Your task to perform on an android device: change the upload size in google photos Image 0: 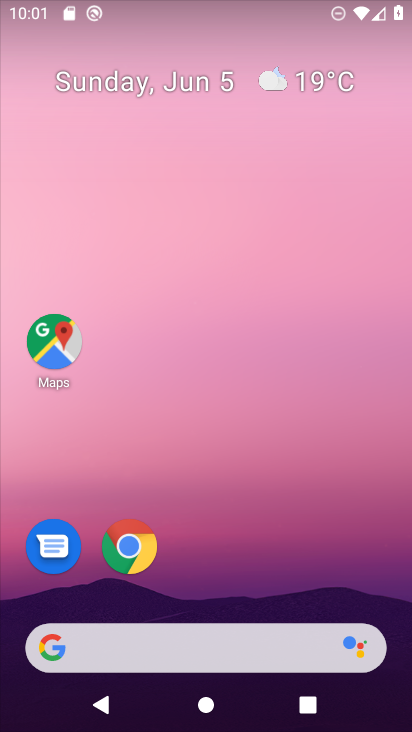
Step 0: drag from (202, 609) to (234, 28)
Your task to perform on an android device: change the upload size in google photos Image 1: 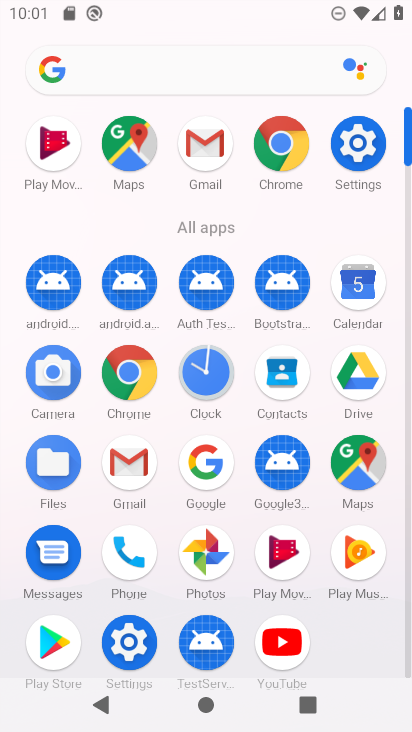
Step 1: click (218, 567)
Your task to perform on an android device: change the upload size in google photos Image 2: 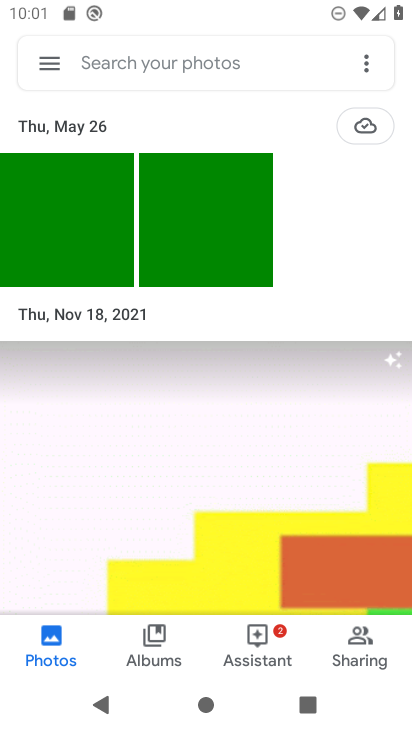
Step 2: click (33, 73)
Your task to perform on an android device: change the upload size in google photos Image 3: 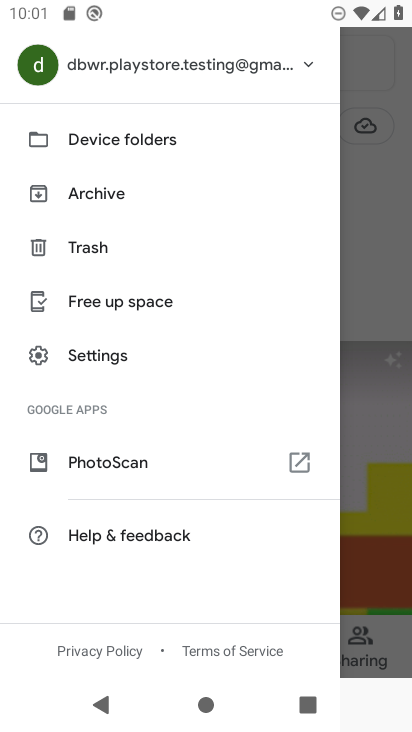
Step 3: click (101, 374)
Your task to perform on an android device: change the upload size in google photos Image 4: 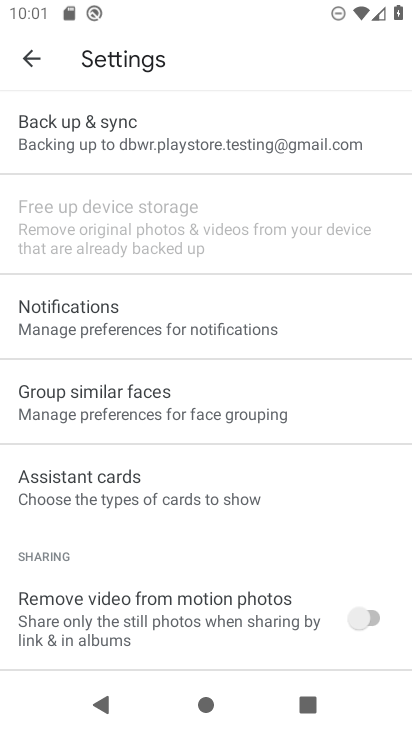
Step 4: click (112, 143)
Your task to perform on an android device: change the upload size in google photos Image 5: 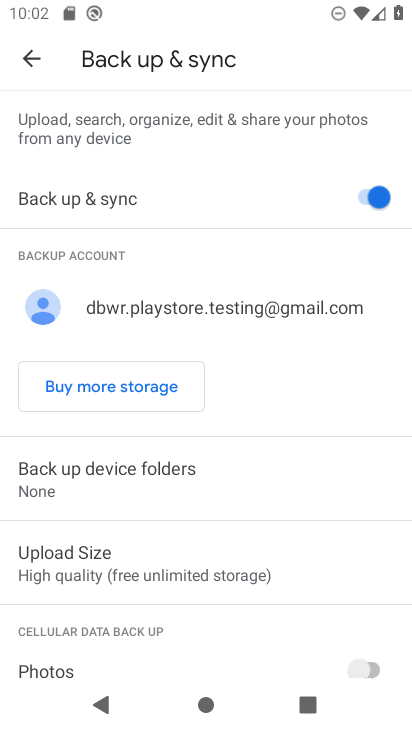
Step 5: click (169, 548)
Your task to perform on an android device: change the upload size in google photos Image 6: 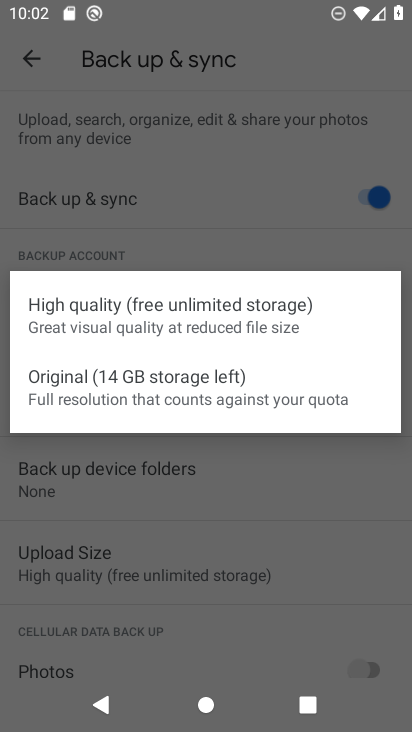
Step 6: click (152, 410)
Your task to perform on an android device: change the upload size in google photos Image 7: 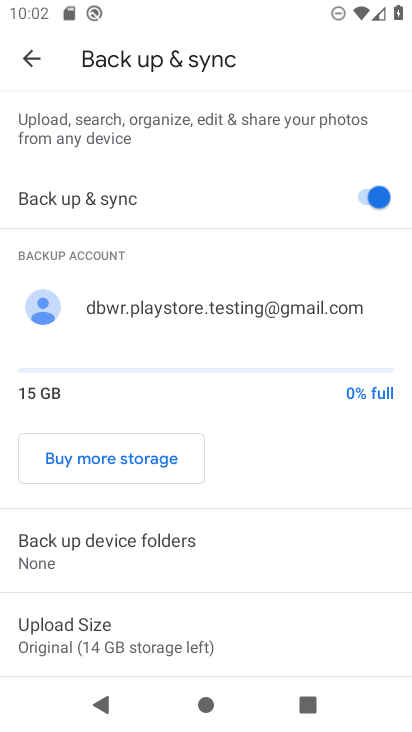
Step 7: task complete